Your task to perform on an android device: change the upload size in google photos Image 0: 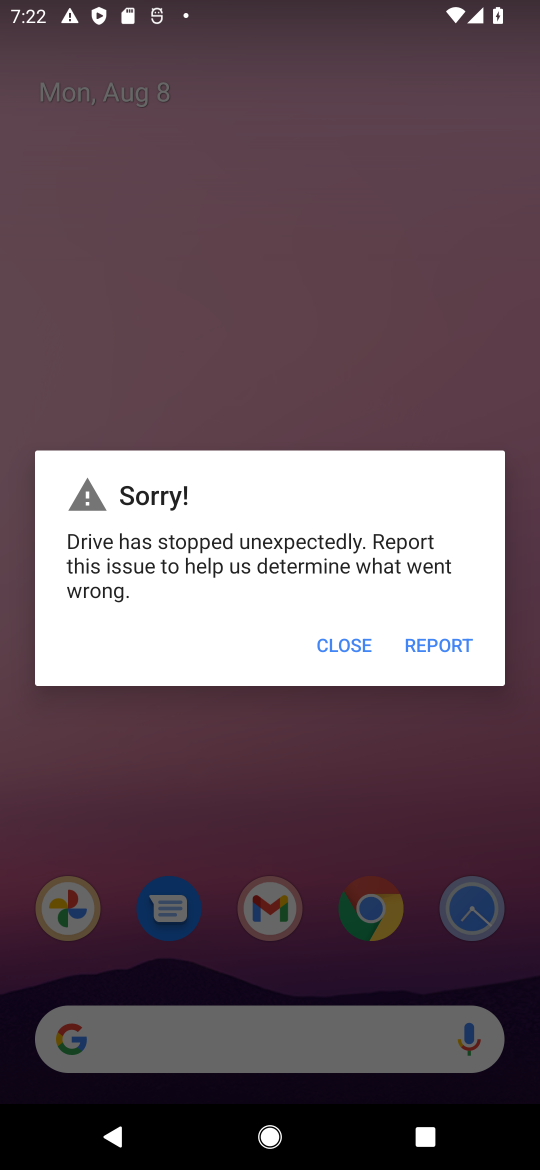
Step 0: click (370, 650)
Your task to perform on an android device: change the upload size in google photos Image 1: 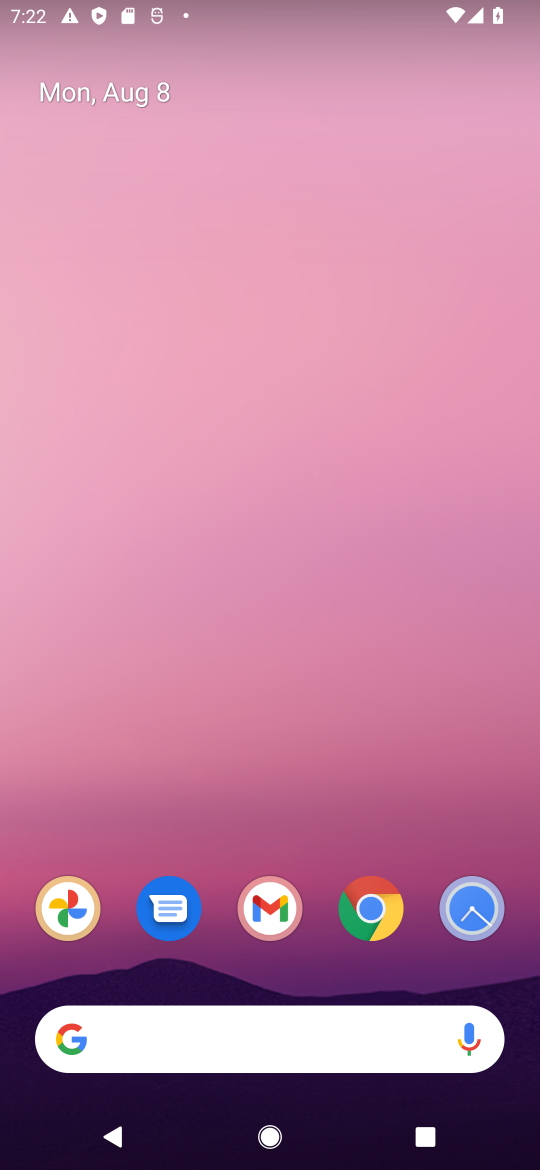
Step 1: click (75, 915)
Your task to perform on an android device: change the upload size in google photos Image 2: 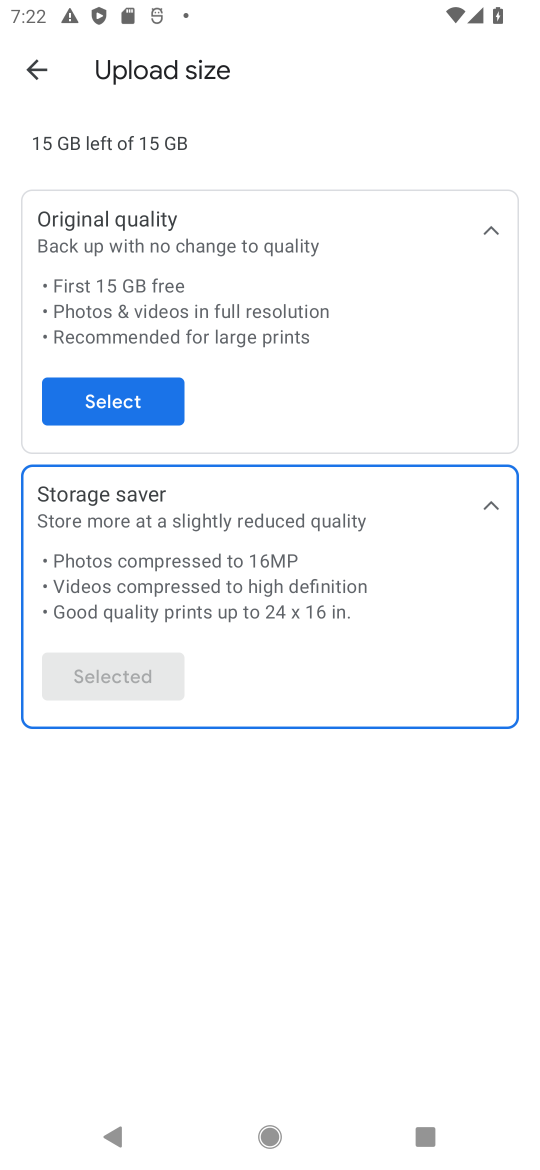
Step 2: click (114, 389)
Your task to perform on an android device: change the upload size in google photos Image 3: 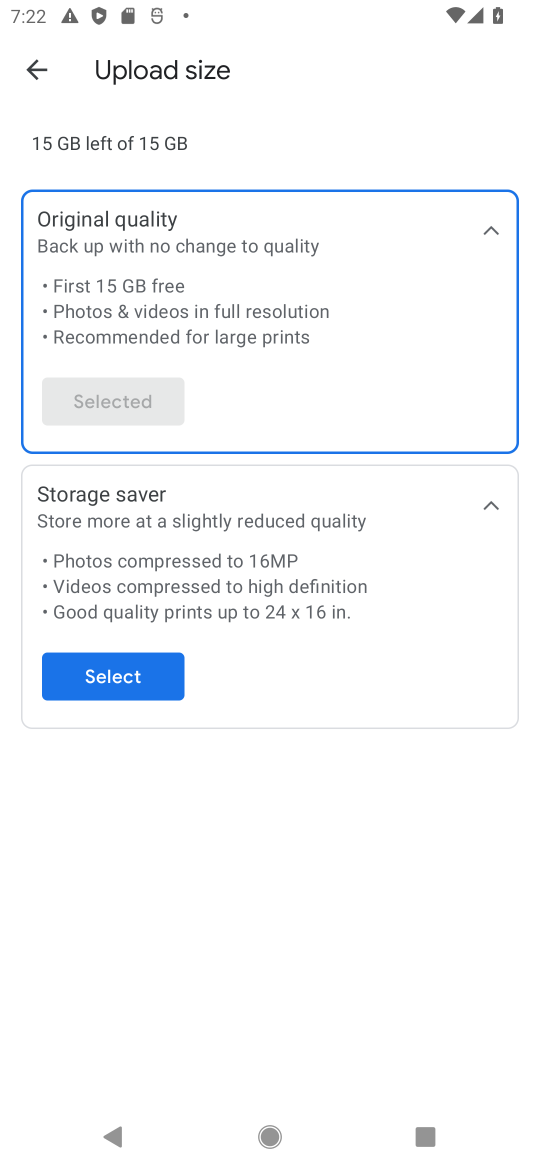
Step 3: task complete